Your task to perform on an android device: Open Youtube and go to the subscriptions tab Image 0: 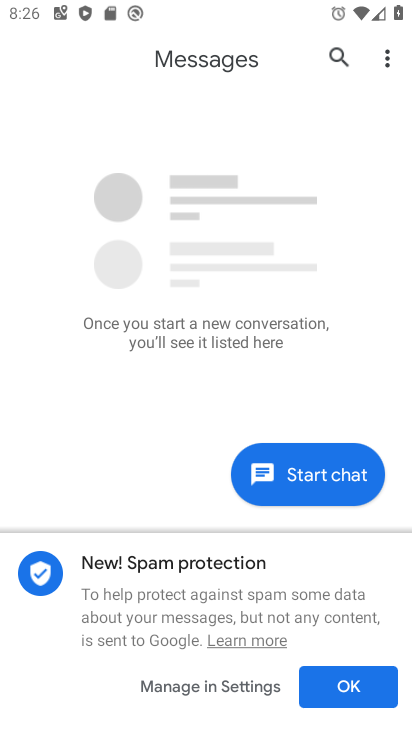
Step 0: press back button
Your task to perform on an android device: Open Youtube and go to the subscriptions tab Image 1: 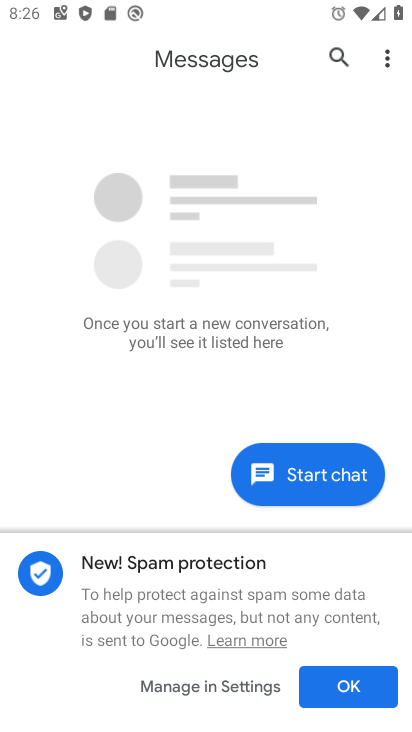
Step 1: press home button
Your task to perform on an android device: Open Youtube and go to the subscriptions tab Image 2: 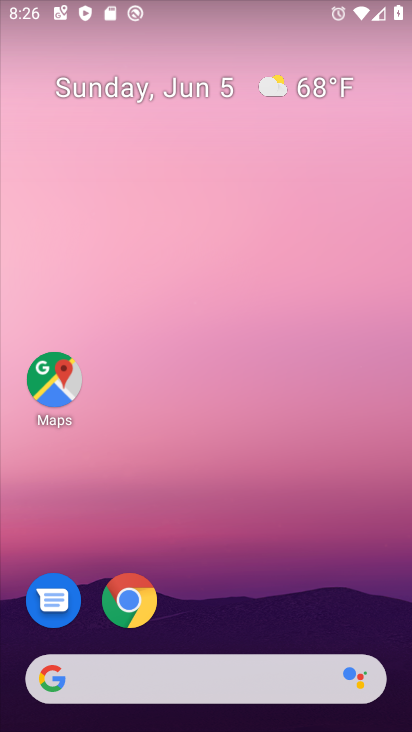
Step 2: drag from (386, 634) to (281, 20)
Your task to perform on an android device: Open Youtube and go to the subscriptions tab Image 3: 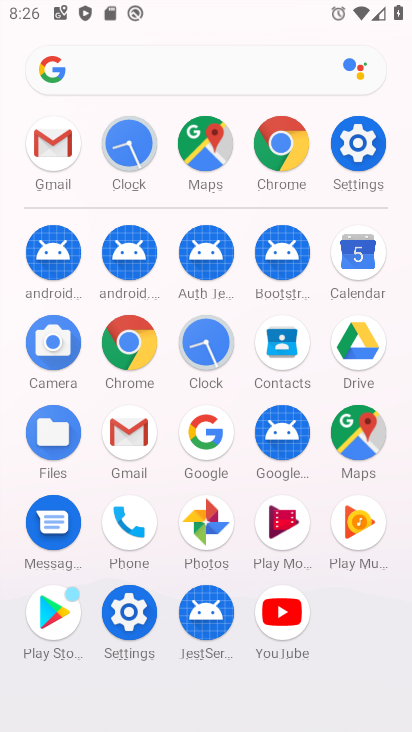
Step 3: click (277, 609)
Your task to perform on an android device: Open Youtube and go to the subscriptions tab Image 4: 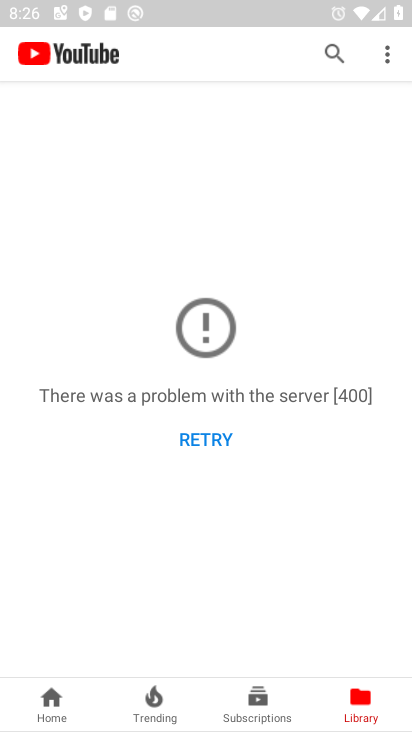
Step 4: click (264, 697)
Your task to perform on an android device: Open Youtube and go to the subscriptions tab Image 5: 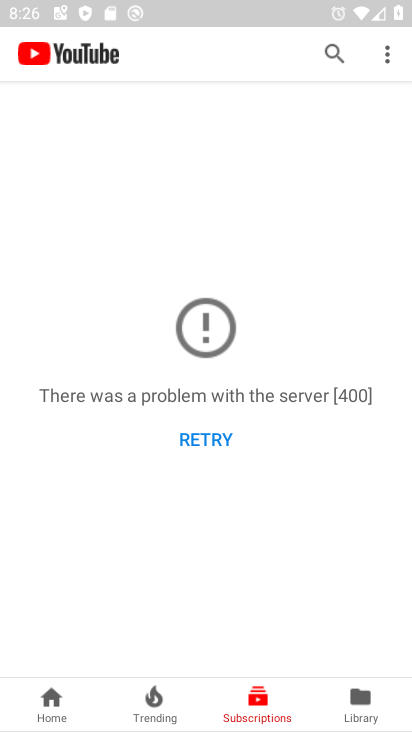
Step 5: task complete